Your task to perform on an android device: Open display settings Image 0: 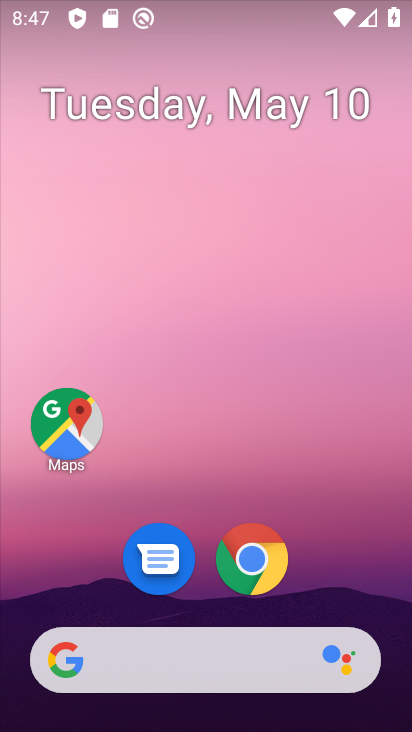
Step 0: drag from (326, 610) to (206, 234)
Your task to perform on an android device: Open display settings Image 1: 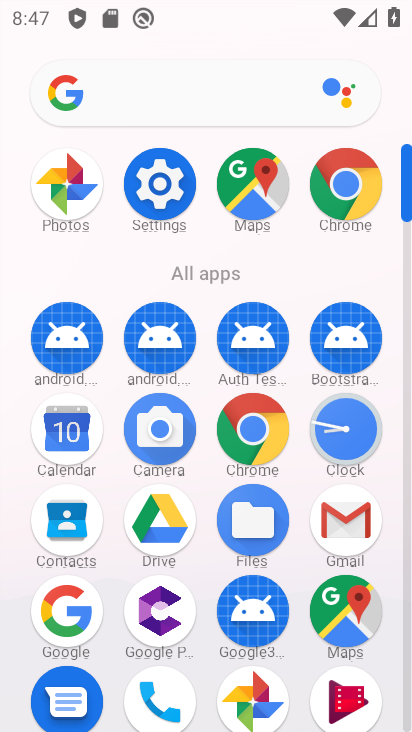
Step 1: click (254, 425)
Your task to perform on an android device: Open display settings Image 2: 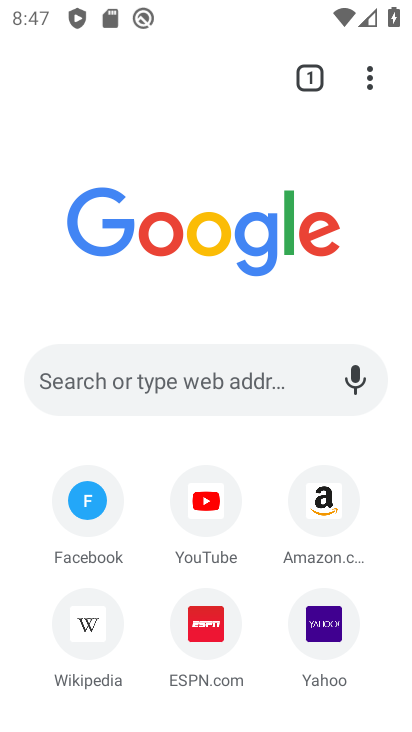
Step 2: drag from (258, 509) to (151, 4)
Your task to perform on an android device: Open display settings Image 3: 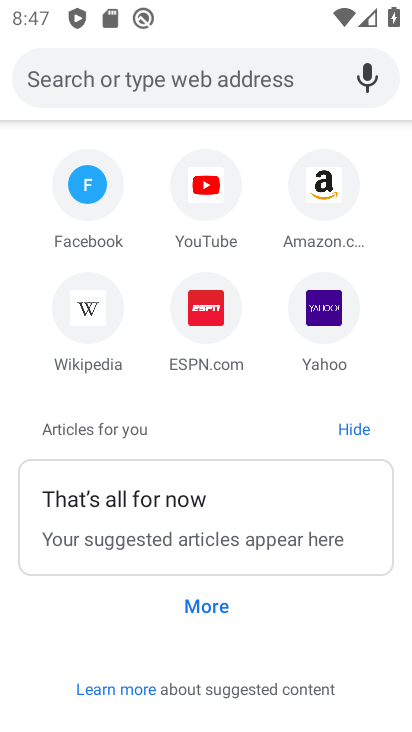
Step 3: press back button
Your task to perform on an android device: Open display settings Image 4: 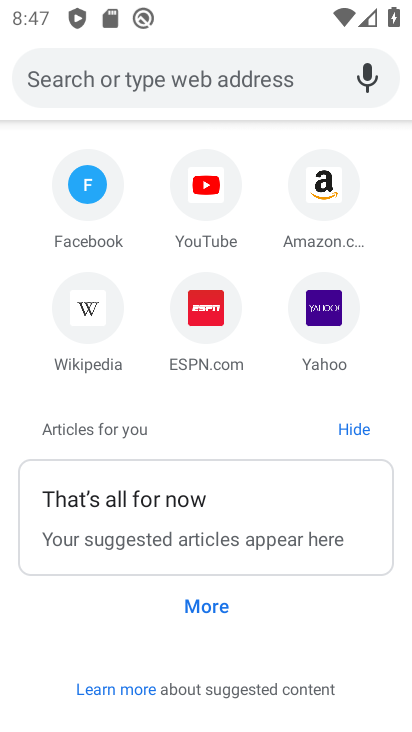
Step 4: press back button
Your task to perform on an android device: Open display settings Image 5: 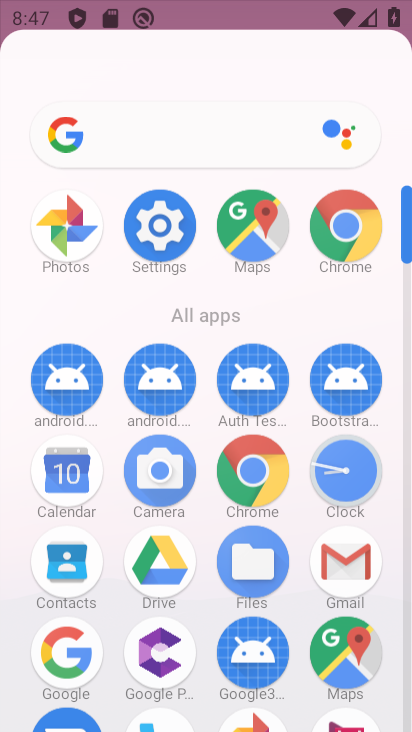
Step 5: press back button
Your task to perform on an android device: Open display settings Image 6: 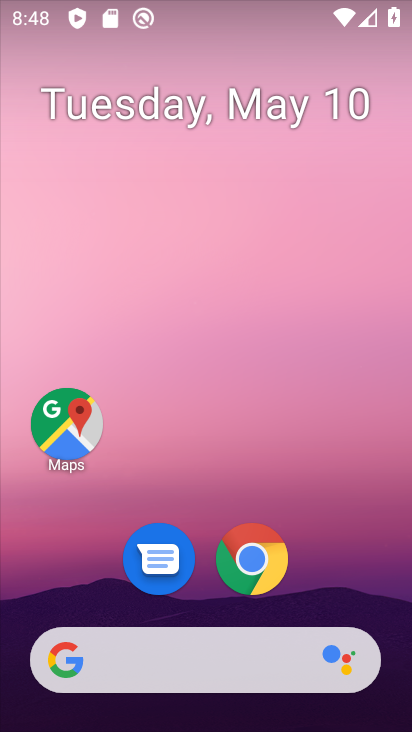
Step 6: drag from (324, 548) to (191, 26)
Your task to perform on an android device: Open display settings Image 7: 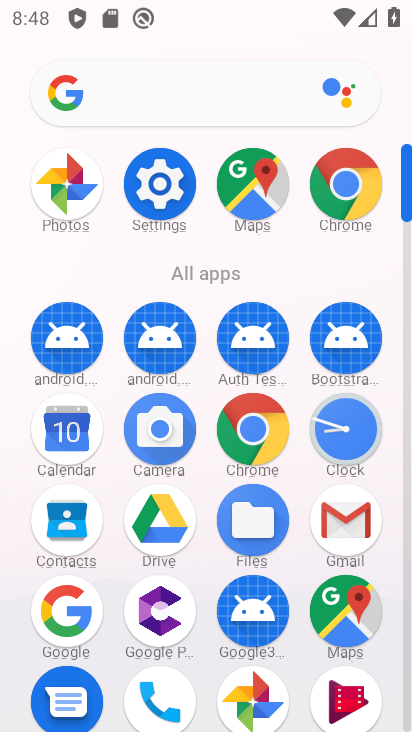
Step 7: click (163, 188)
Your task to perform on an android device: Open display settings Image 8: 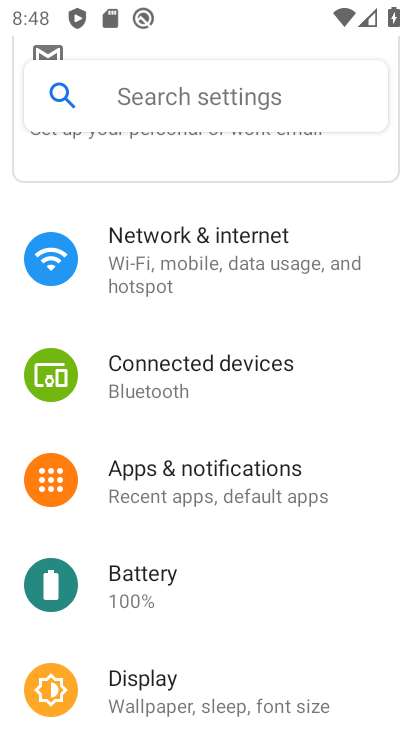
Step 8: click (144, 690)
Your task to perform on an android device: Open display settings Image 9: 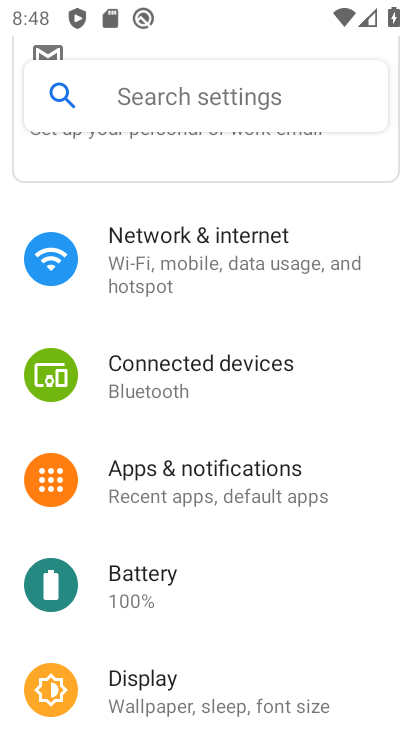
Step 9: click (144, 691)
Your task to perform on an android device: Open display settings Image 10: 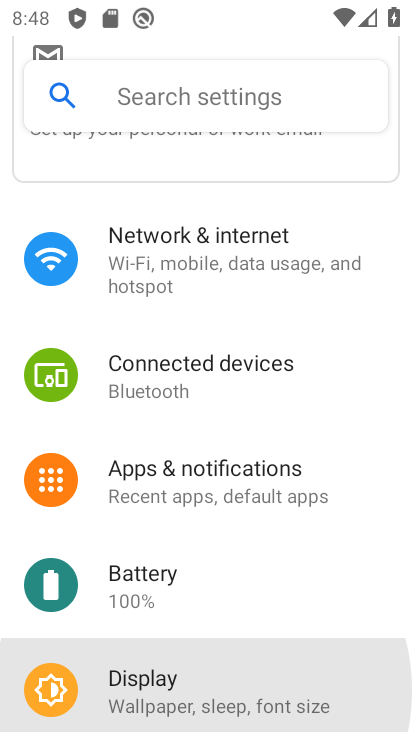
Step 10: click (144, 691)
Your task to perform on an android device: Open display settings Image 11: 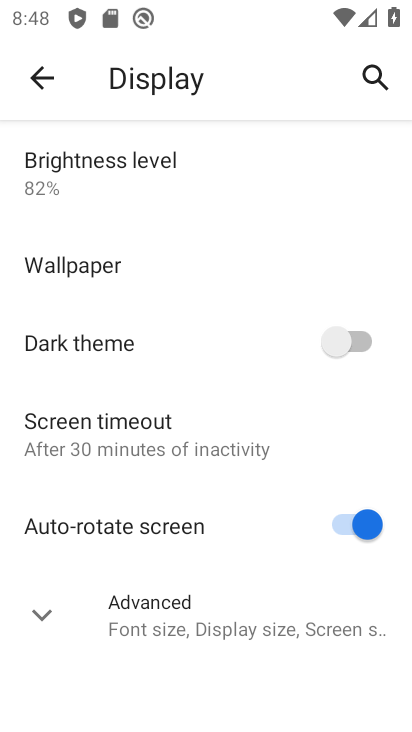
Step 11: drag from (113, 470) to (53, 35)
Your task to perform on an android device: Open display settings Image 12: 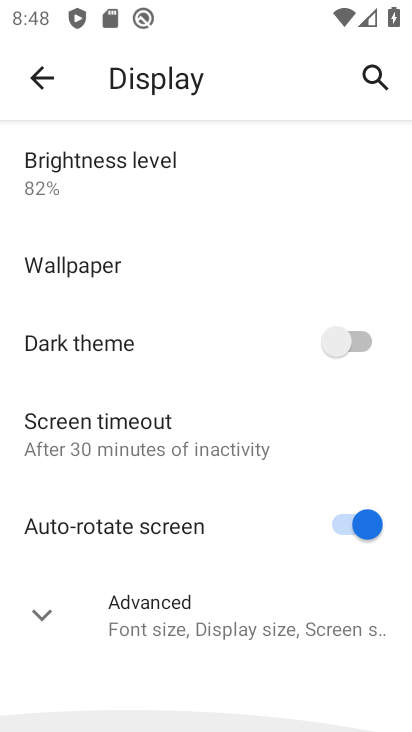
Step 12: drag from (186, 479) to (109, 51)
Your task to perform on an android device: Open display settings Image 13: 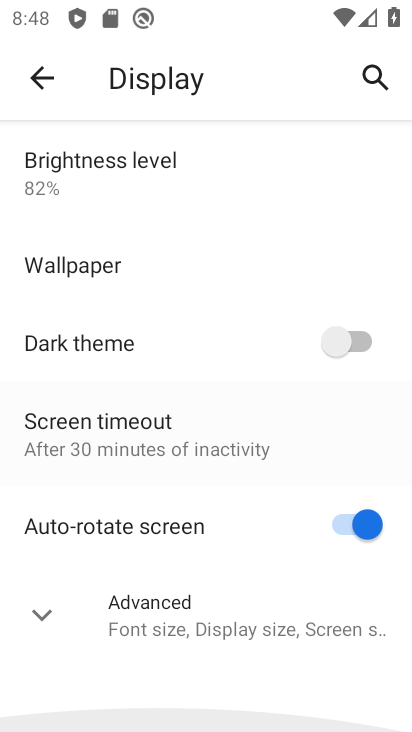
Step 13: drag from (143, 449) to (83, 32)
Your task to perform on an android device: Open display settings Image 14: 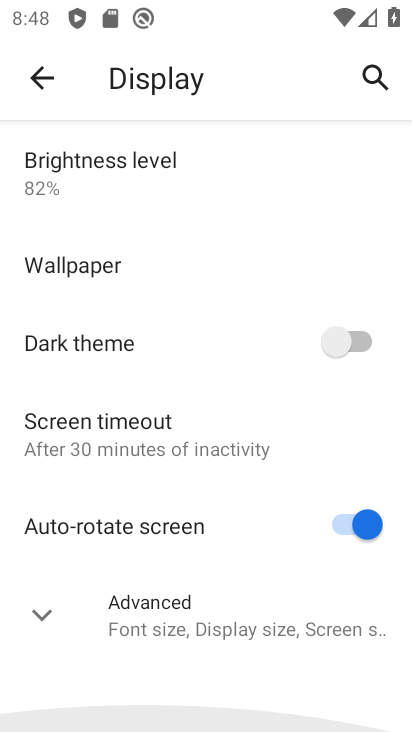
Step 14: drag from (189, 472) to (78, 8)
Your task to perform on an android device: Open display settings Image 15: 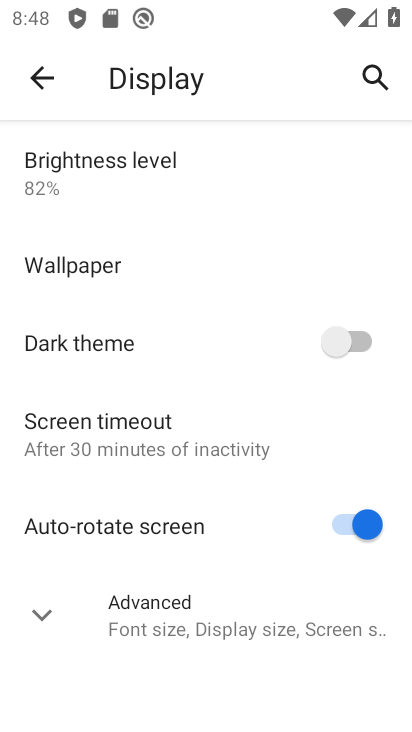
Step 15: drag from (166, 519) to (66, 126)
Your task to perform on an android device: Open display settings Image 16: 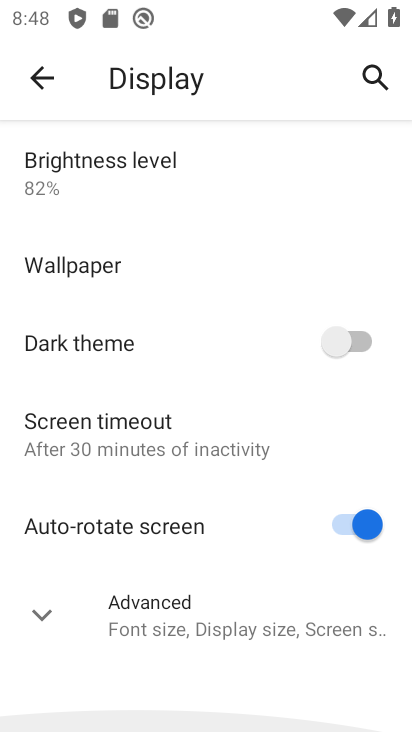
Step 16: drag from (160, 499) to (77, 87)
Your task to perform on an android device: Open display settings Image 17: 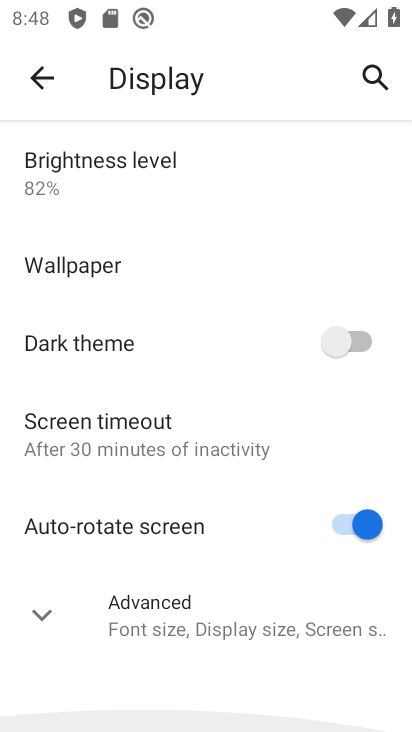
Step 17: drag from (139, 509) to (95, 162)
Your task to perform on an android device: Open display settings Image 18: 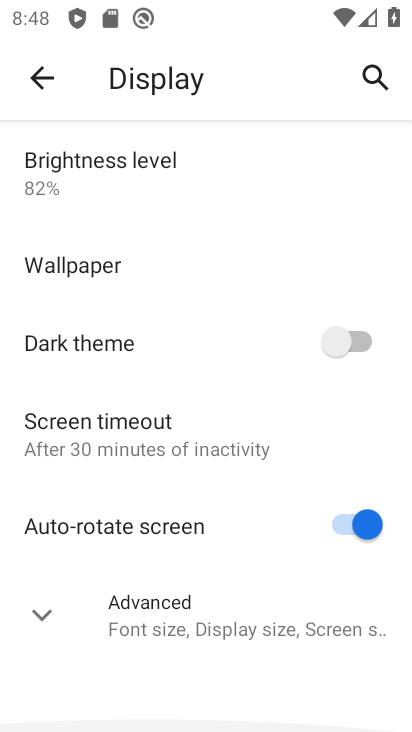
Step 18: drag from (165, 401) to (109, 79)
Your task to perform on an android device: Open display settings Image 19: 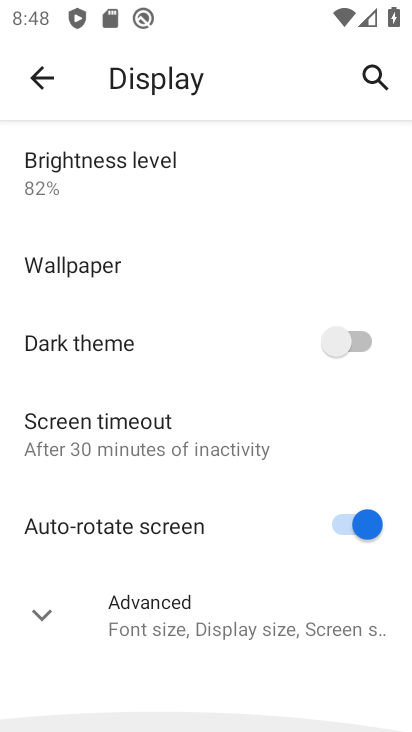
Step 19: drag from (126, 264) to (93, 72)
Your task to perform on an android device: Open display settings Image 20: 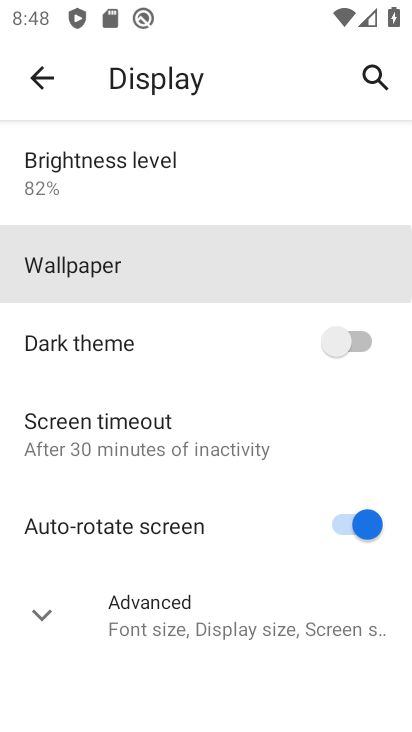
Step 20: drag from (139, 477) to (88, 149)
Your task to perform on an android device: Open display settings Image 21: 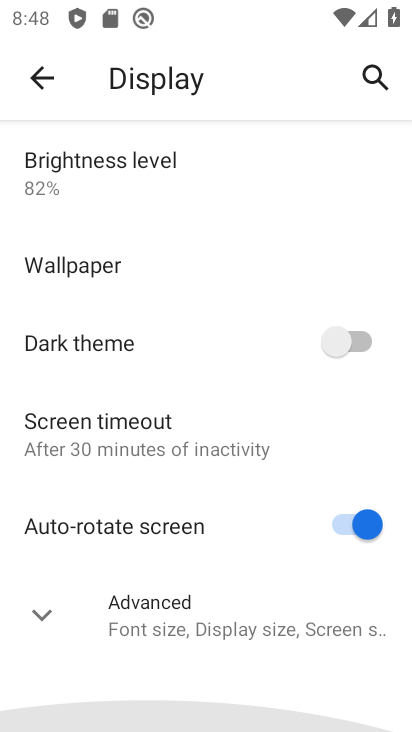
Step 21: drag from (131, 450) to (67, 119)
Your task to perform on an android device: Open display settings Image 22: 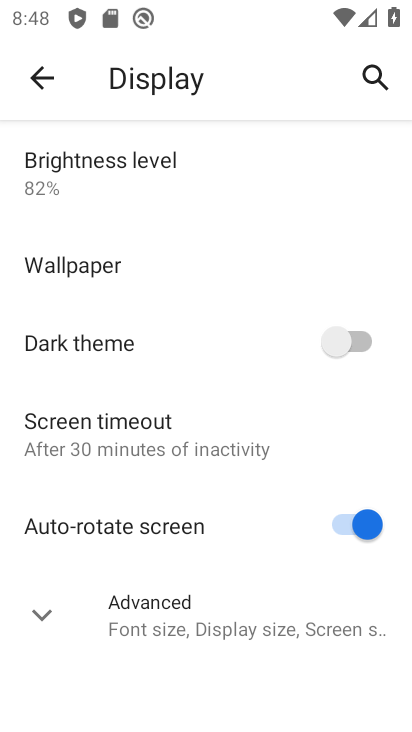
Step 22: click (187, 632)
Your task to perform on an android device: Open display settings Image 23: 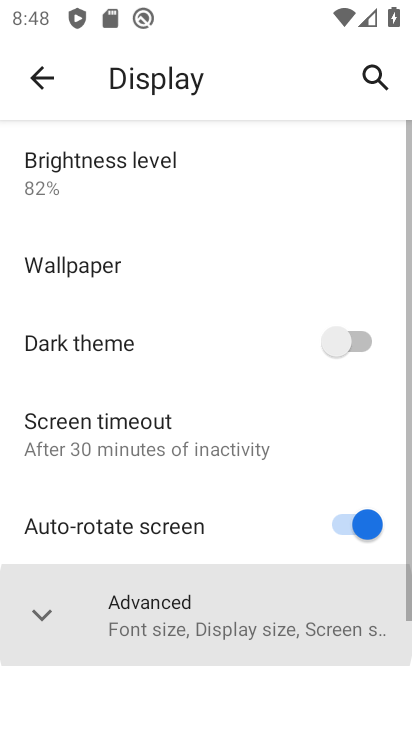
Step 23: click (187, 632)
Your task to perform on an android device: Open display settings Image 24: 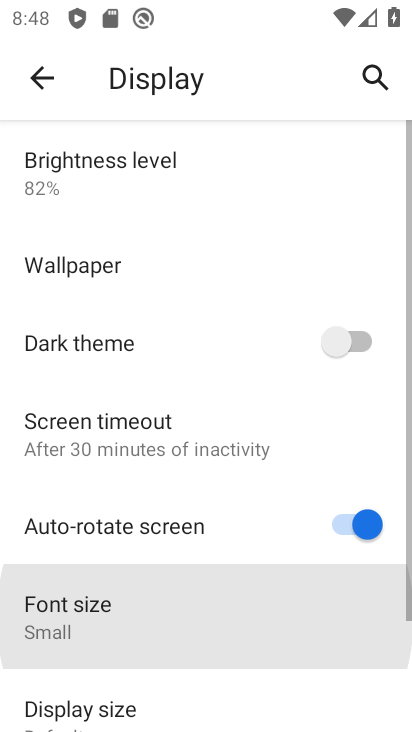
Step 24: click (187, 632)
Your task to perform on an android device: Open display settings Image 25: 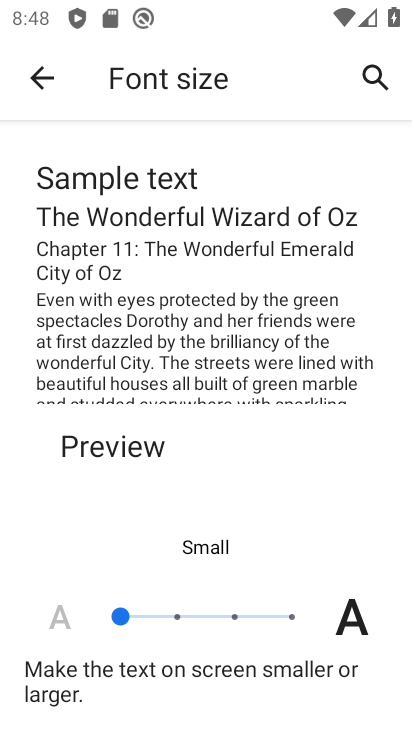
Step 25: click (172, 614)
Your task to perform on an android device: Open display settings Image 26: 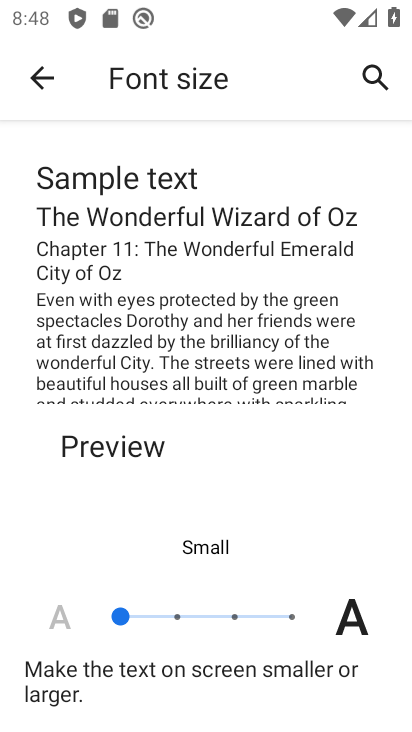
Step 26: click (172, 616)
Your task to perform on an android device: Open display settings Image 27: 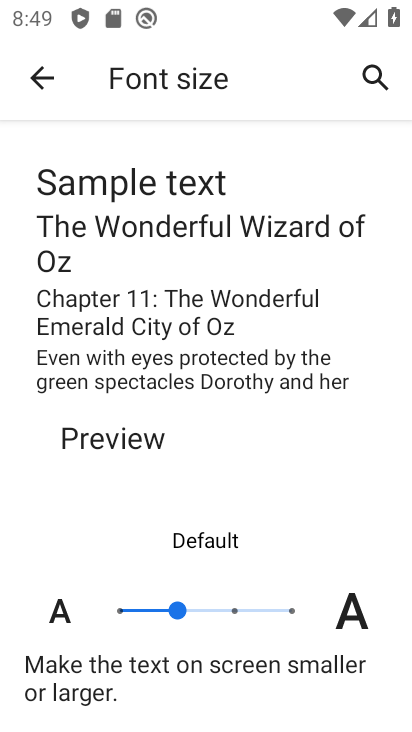
Step 27: press back button
Your task to perform on an android device: Open display settings Image 28: 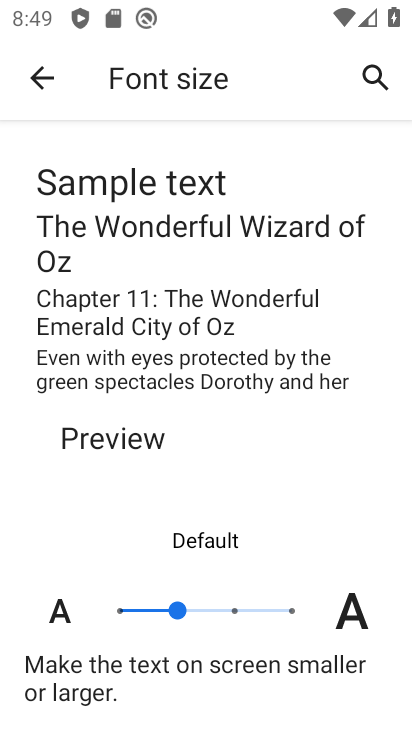
Step 28: press back button
Your task to perform on an android device: Open display settings Image 29: 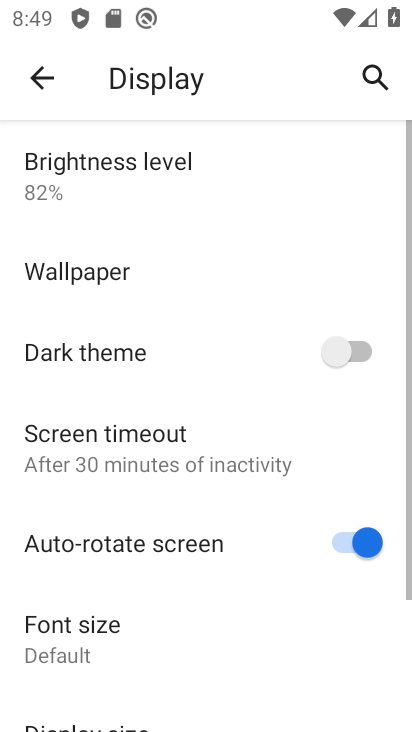
Step 29: press back button
Your task to perform on an android device: Open display settings Image 30: 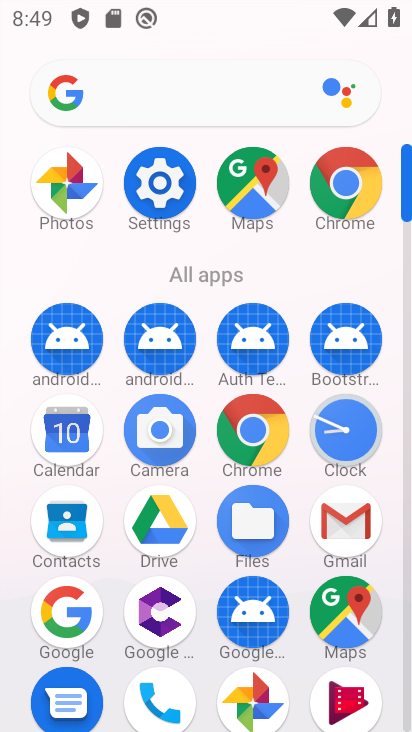
Step 30: click (161, 183)
Your task to perform on an android device: Open display settings Image 31: 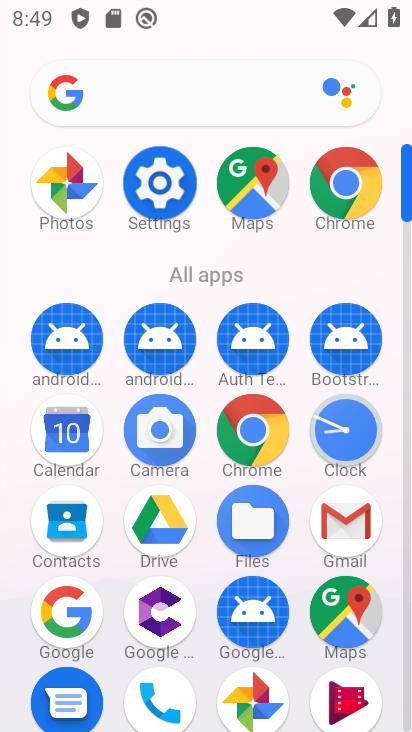
Step 31: click (161, 183)
Your task to perform on an android device: Open display settings Image 32: 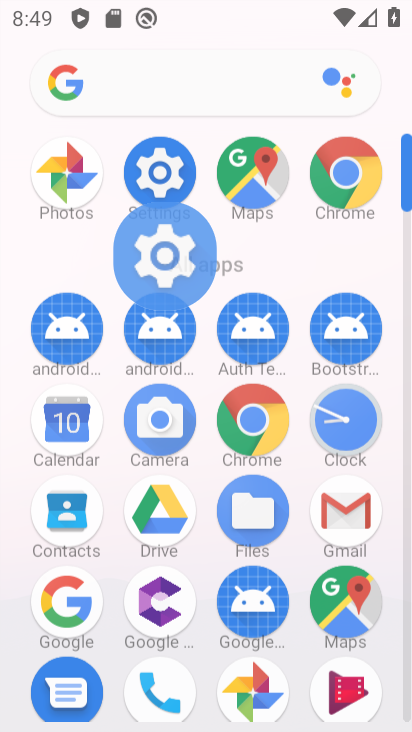
Step 32: click (161, 183)
Your task to perform on an android device: Open display settings Image 33: 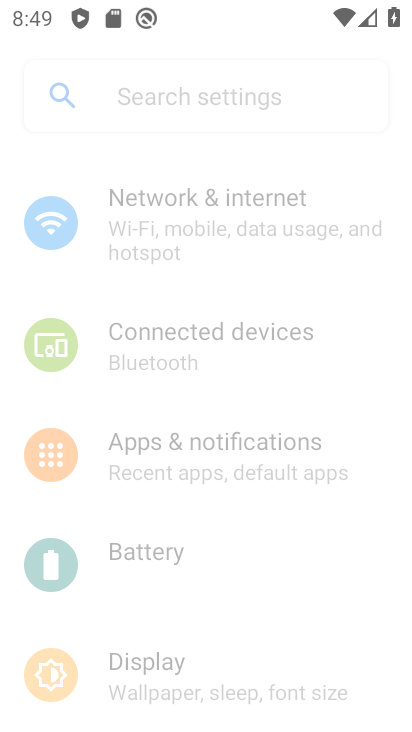
Step 33: click (161, 183)
Your task to perform on an android device: Open display settings Image 34: 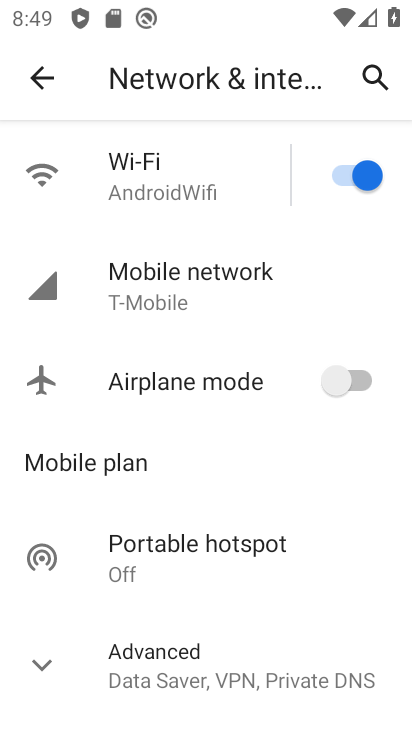
Step 34: click (39, 78)
Your task to perform on an android device: Open display settings Image 35: 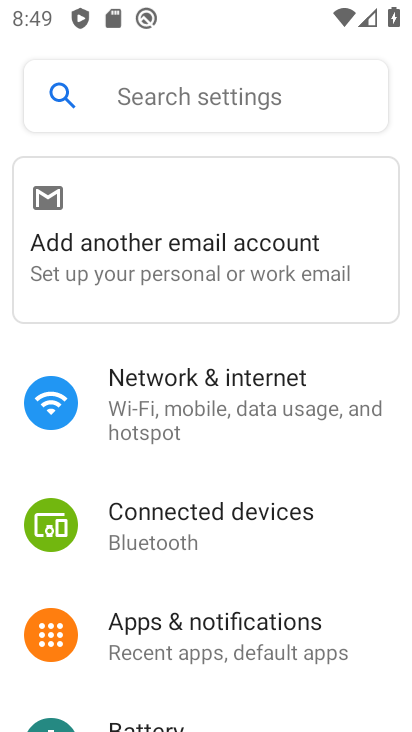
Step 35: drag from (219, 625) to (173, 239)
Your task to perform on an android device: Open display settings Image 36: 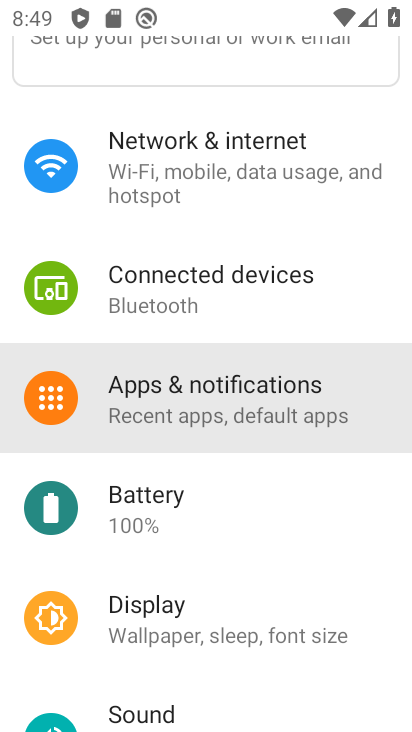
Step 36: drag from (199, 574) to (173, 302)
Your task to perform on an android device: Open display settings Image 37: 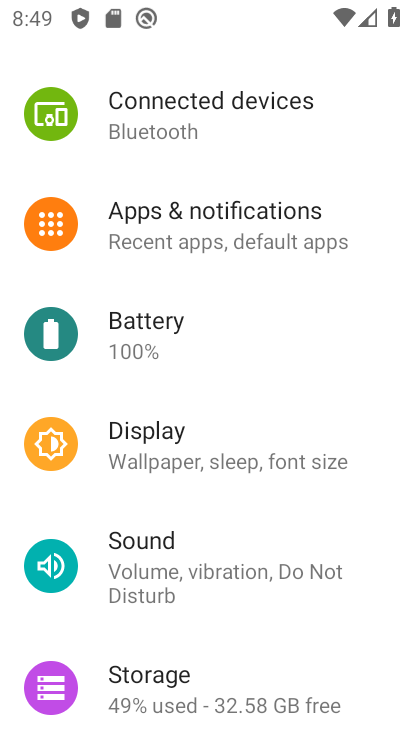
Step 37: click (148, 458)
Your task to perform on an android device: Open display settings Image 38: 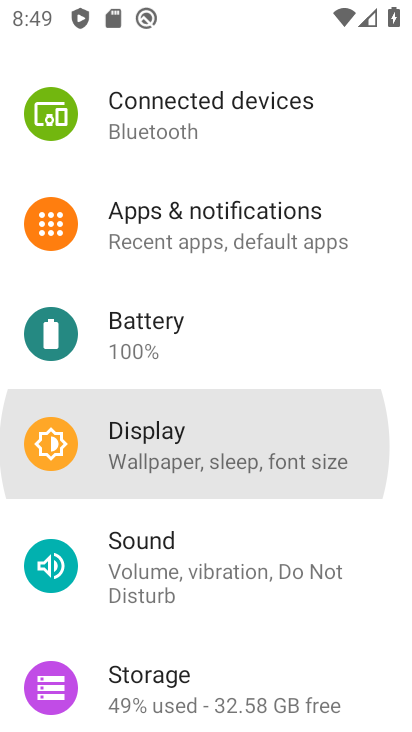
Step 38: click (149, 457)
Your task to perform on an android device: Open display settings Image 39: 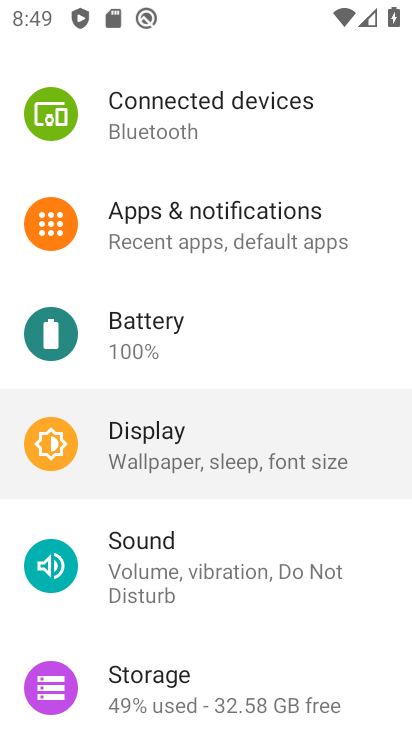
Step 39: click (149, 457)
Your task to perform on an android device: Open display settings Image 40: 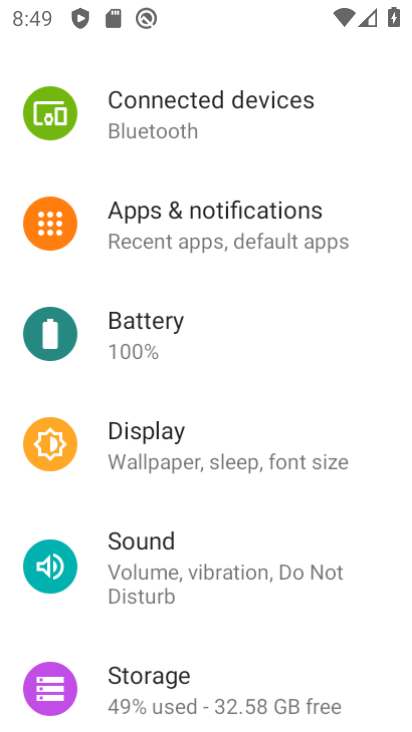
Step 40: click (149, 457)
Your task to perform on an android device: Open display settings Image 41: 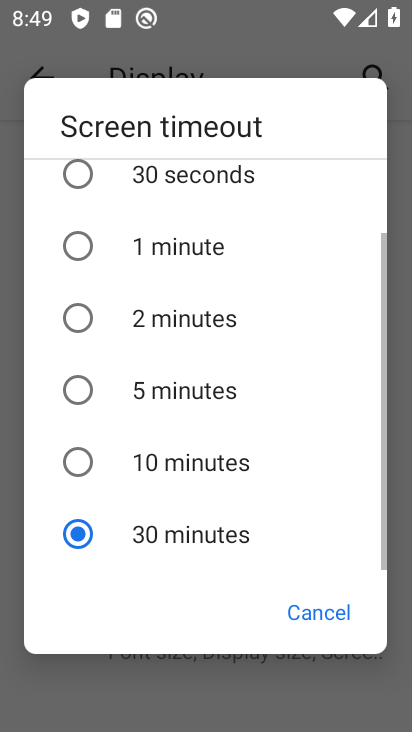
Step 41: click (328, 607)
Your task to perform on an android device: Open display settings Image 42: 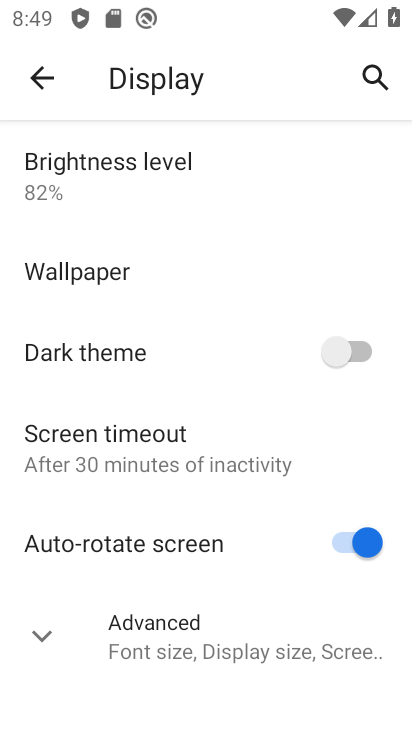
Step 42: task complete